Your task to perform on an android device: open app "Adobe Acrobat Reader" Image 0: 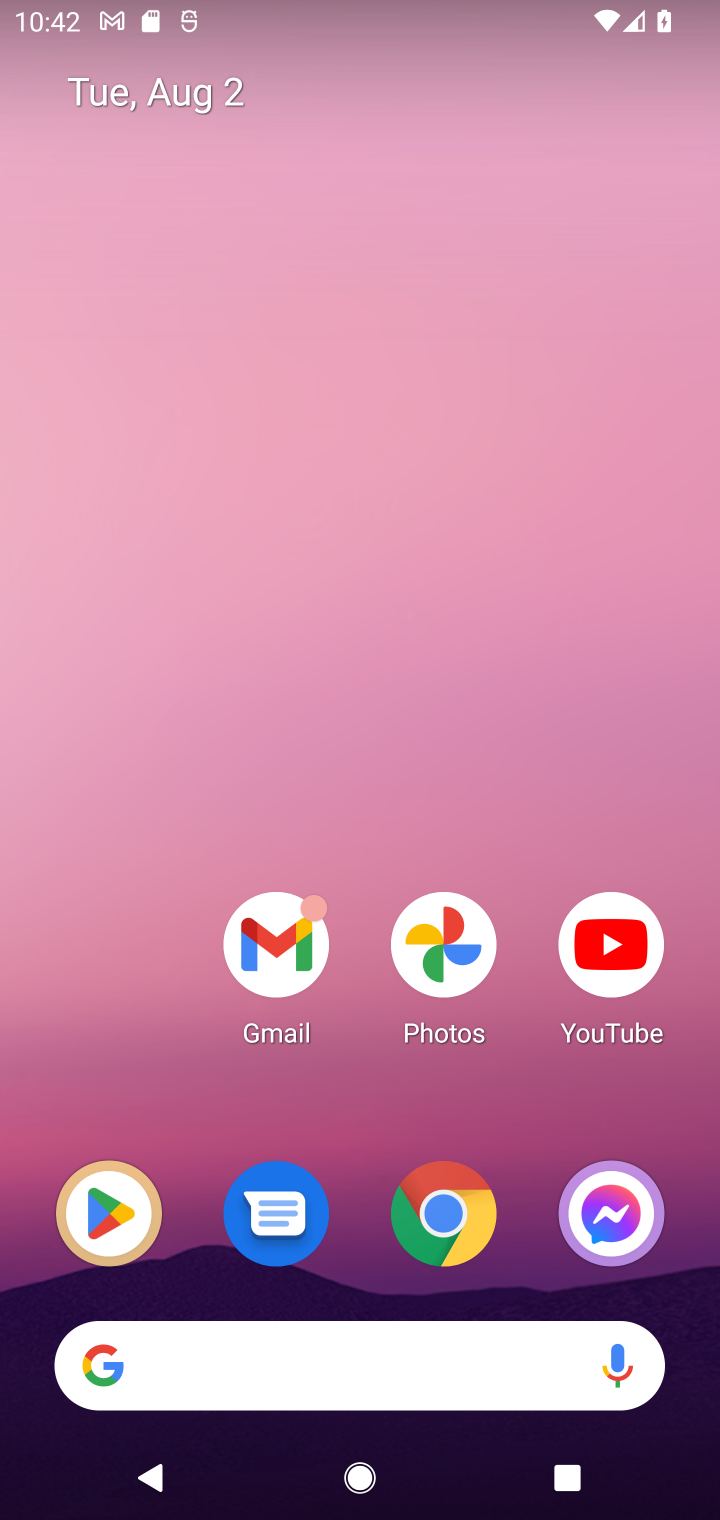
Step 0: press home button
Your task to perform on an android device: open app "Adobe Acrobat Reader" Image 1: 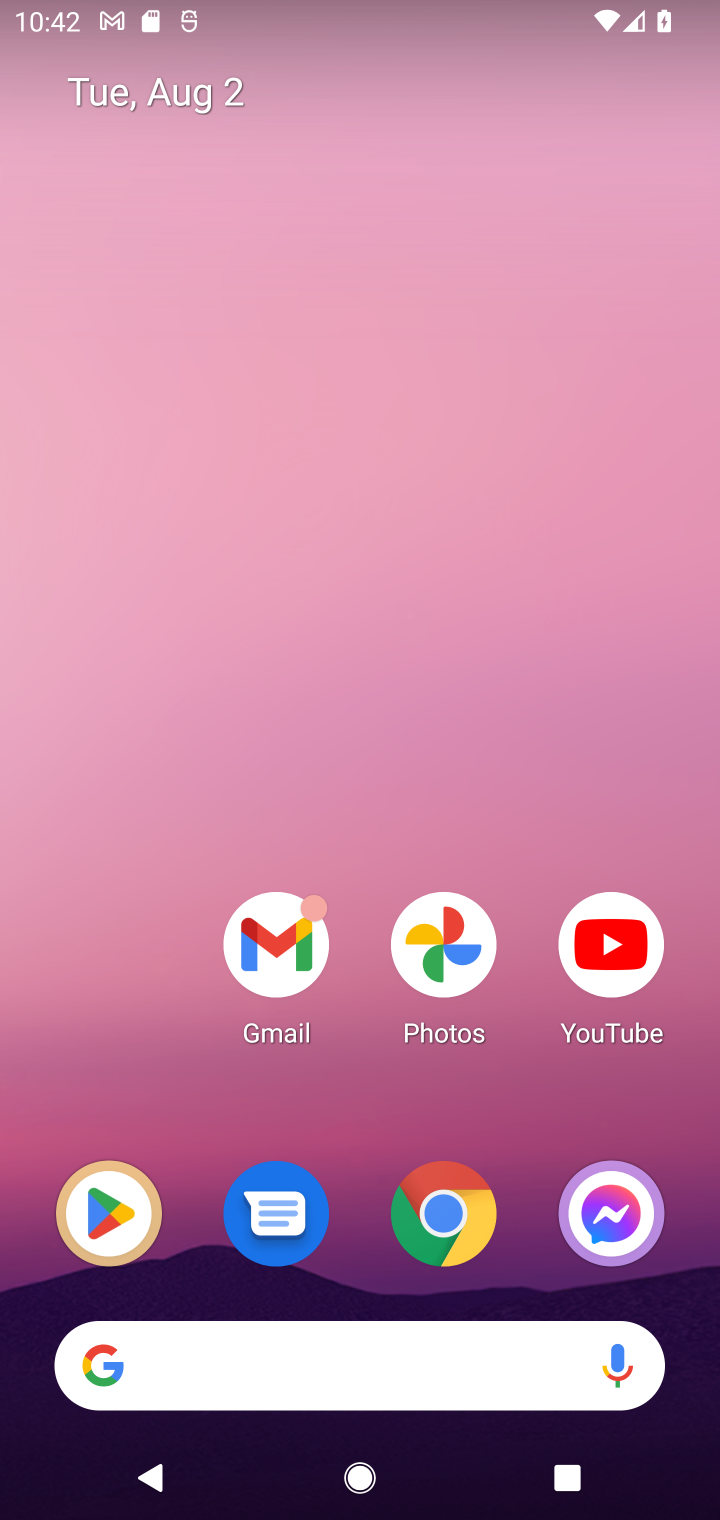
Step 1: click (96, 1230)
Your task to perform on an android device: open app "Adobe Acrobat Reader" Image 2: 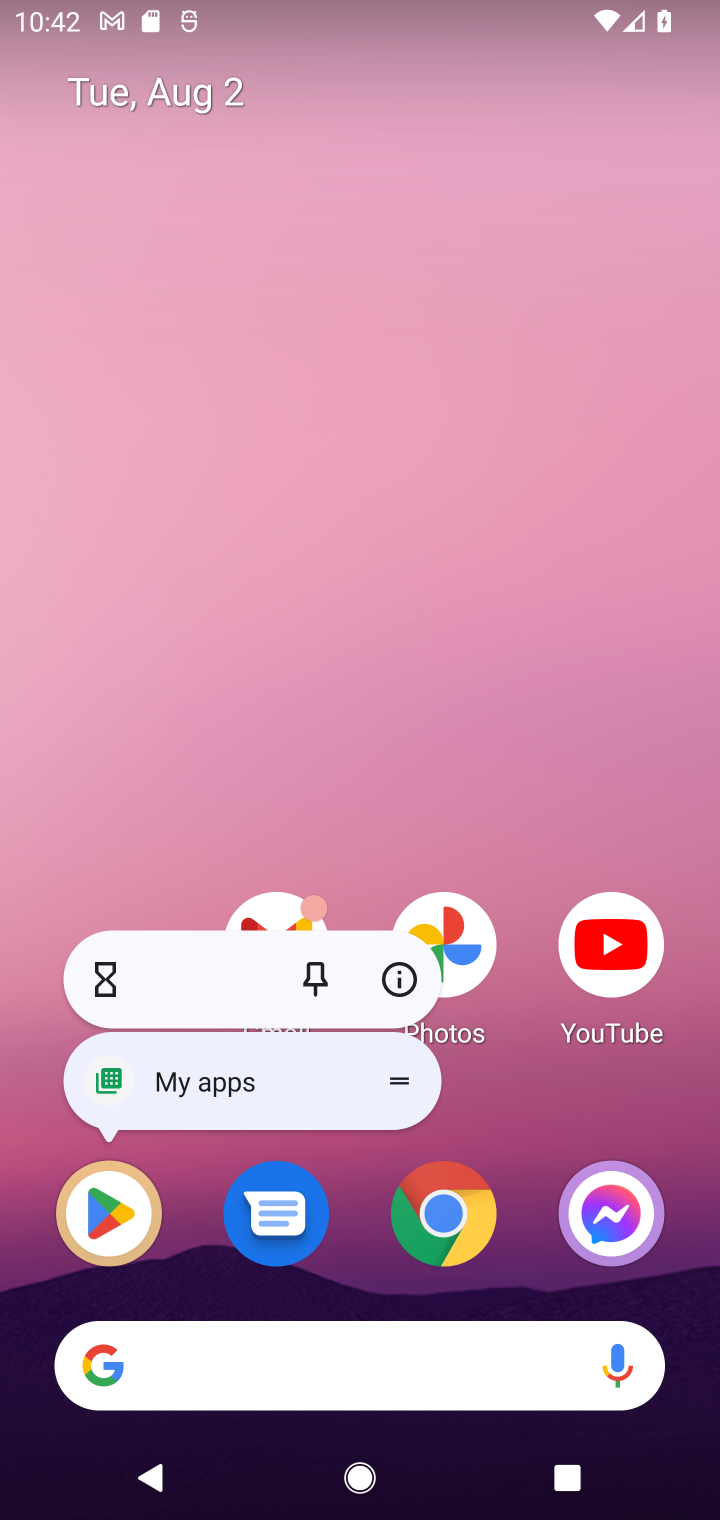
Step 2: click (121, 1230)
Your task to perform on an android device: open app "Adobe Acrobat Reader" Image 3: 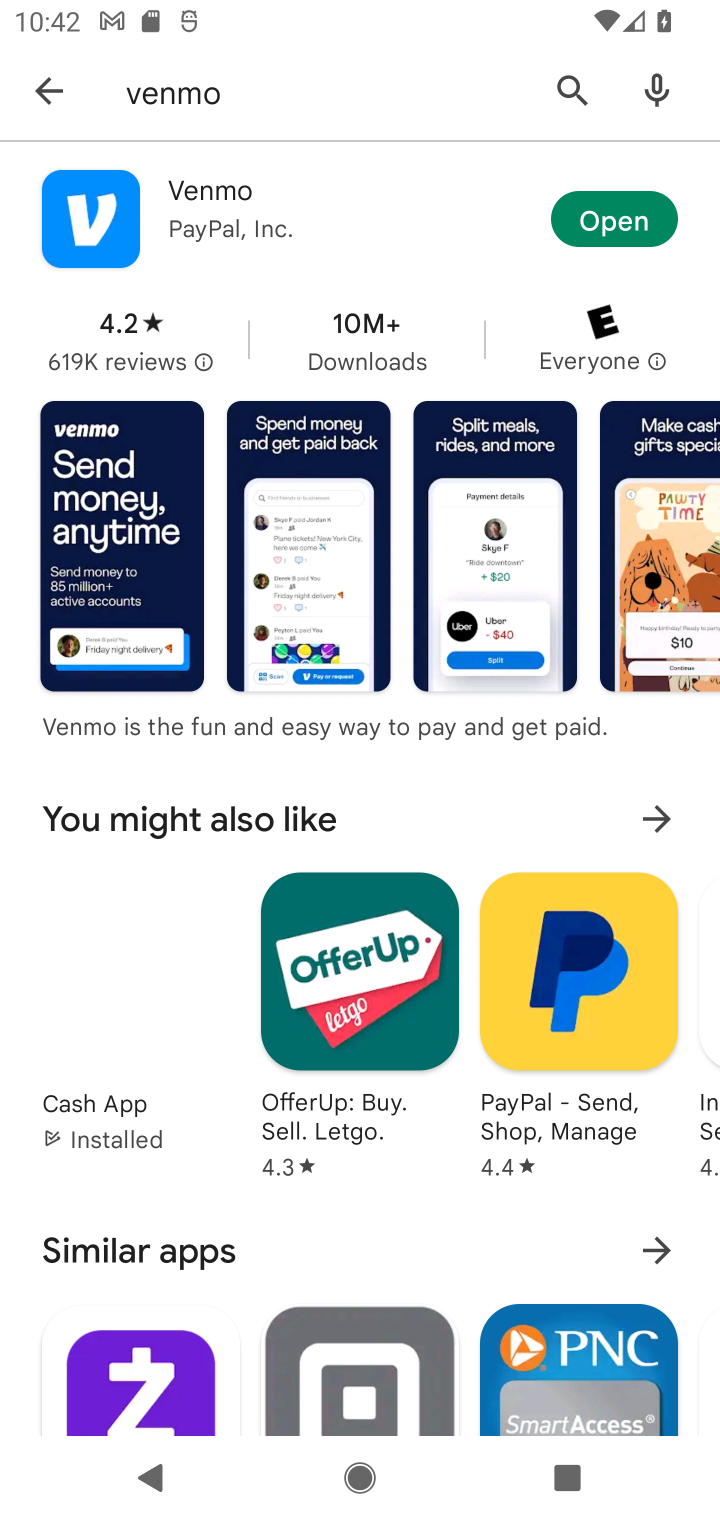
Step 3: click (37, 82)
Your task to perform on an android device: open app "Adobe Acrobat Reader" Image 4: 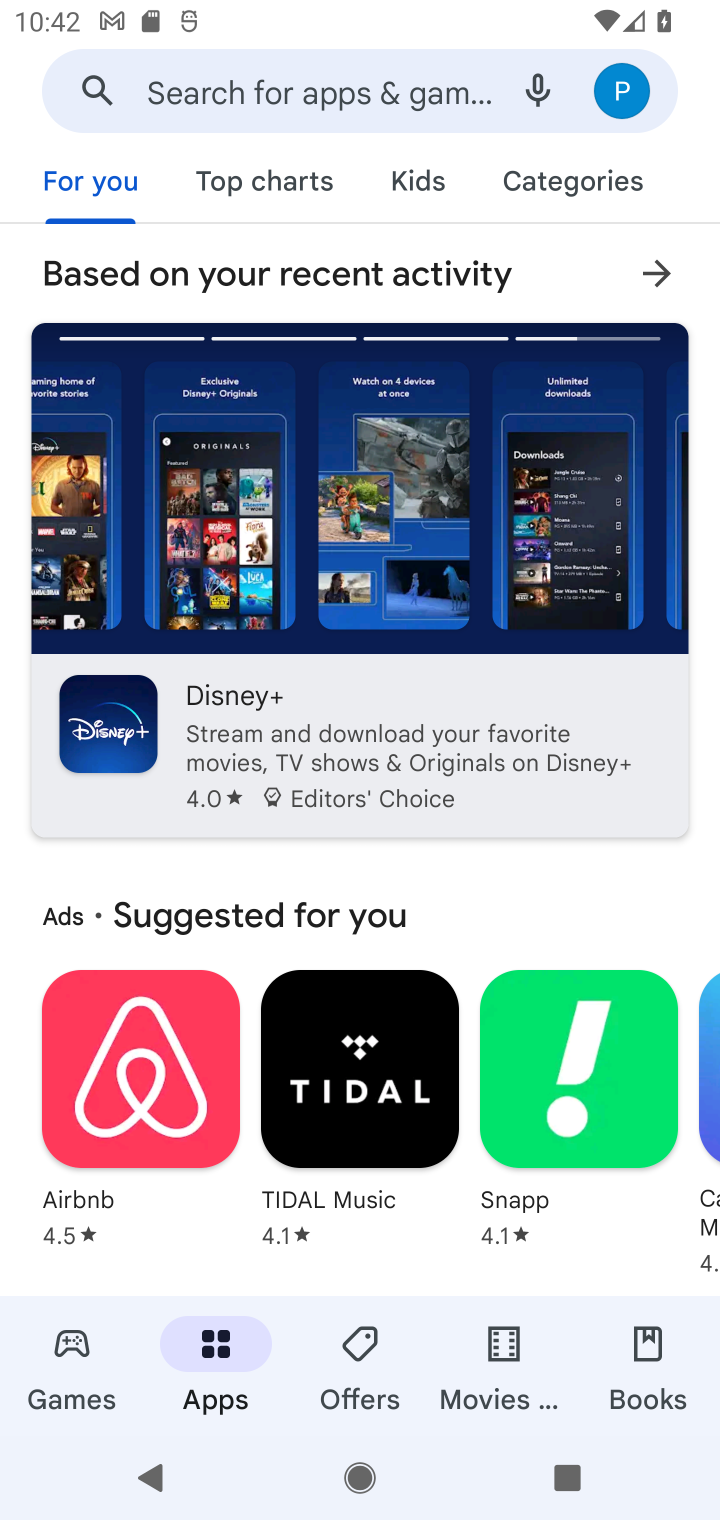
Step 4: click (286, 70)
Your task to perform on an android device: open app "Adobe Acrobat Reader" Image 5: 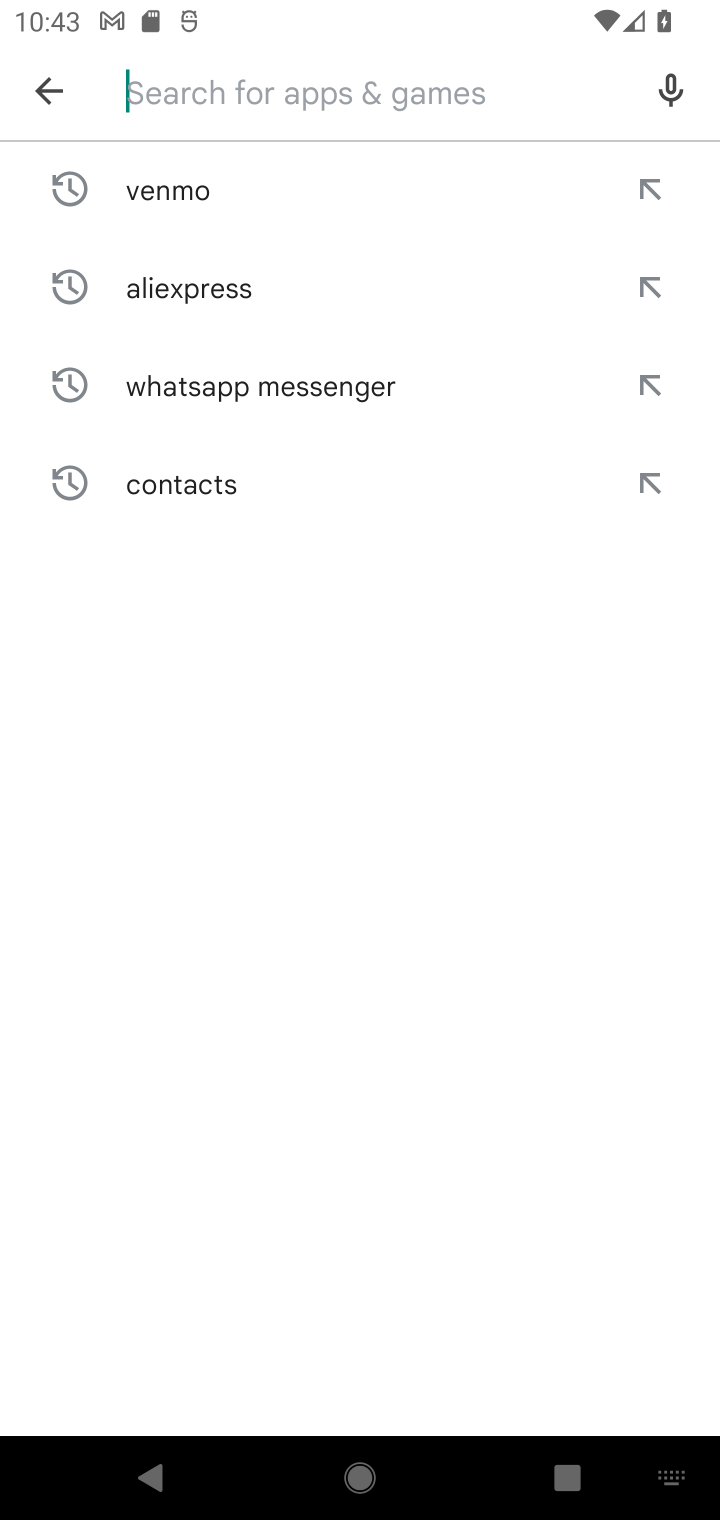
Step 5: type "Adobe Acrobat Reader"
Your task to perform on an android device: open app "Adobe Acrobat Reader" Image 6: 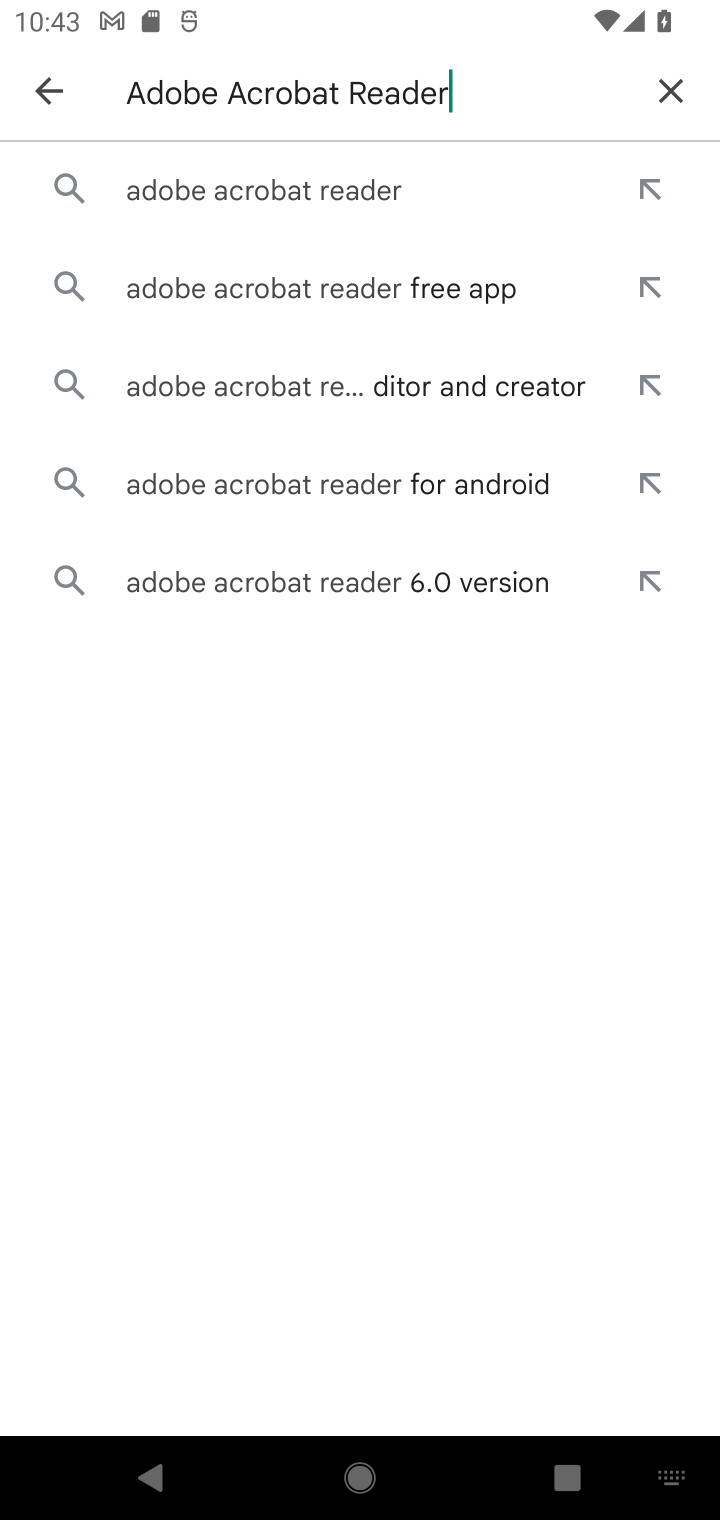
Step 6: click (357, 191)
Your task to perform on an android device: open app "Adobe Acrobat Reader" Image 7: 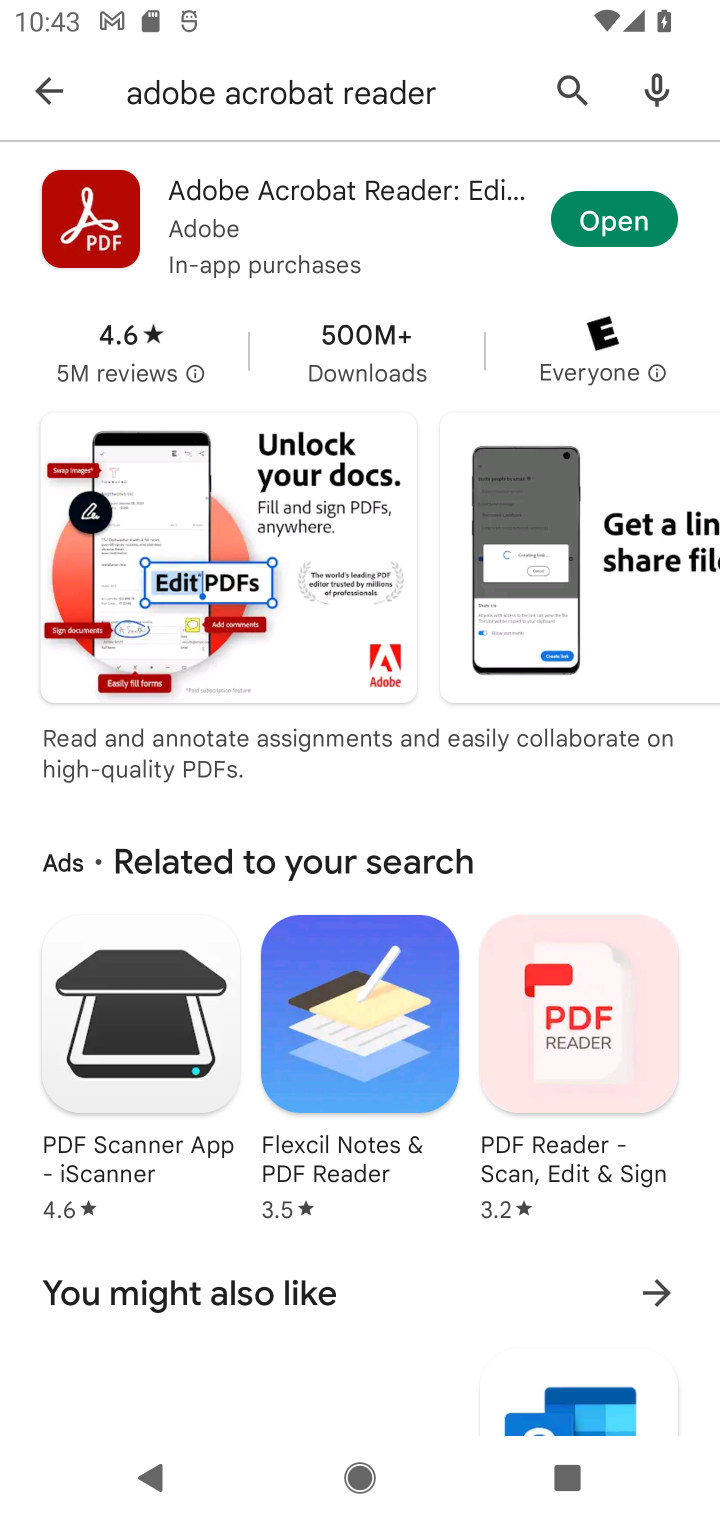
Step 7: click (601, 228)
Your task to perform on an android device: open app "Adobe Acrobat Reader" Image 8: 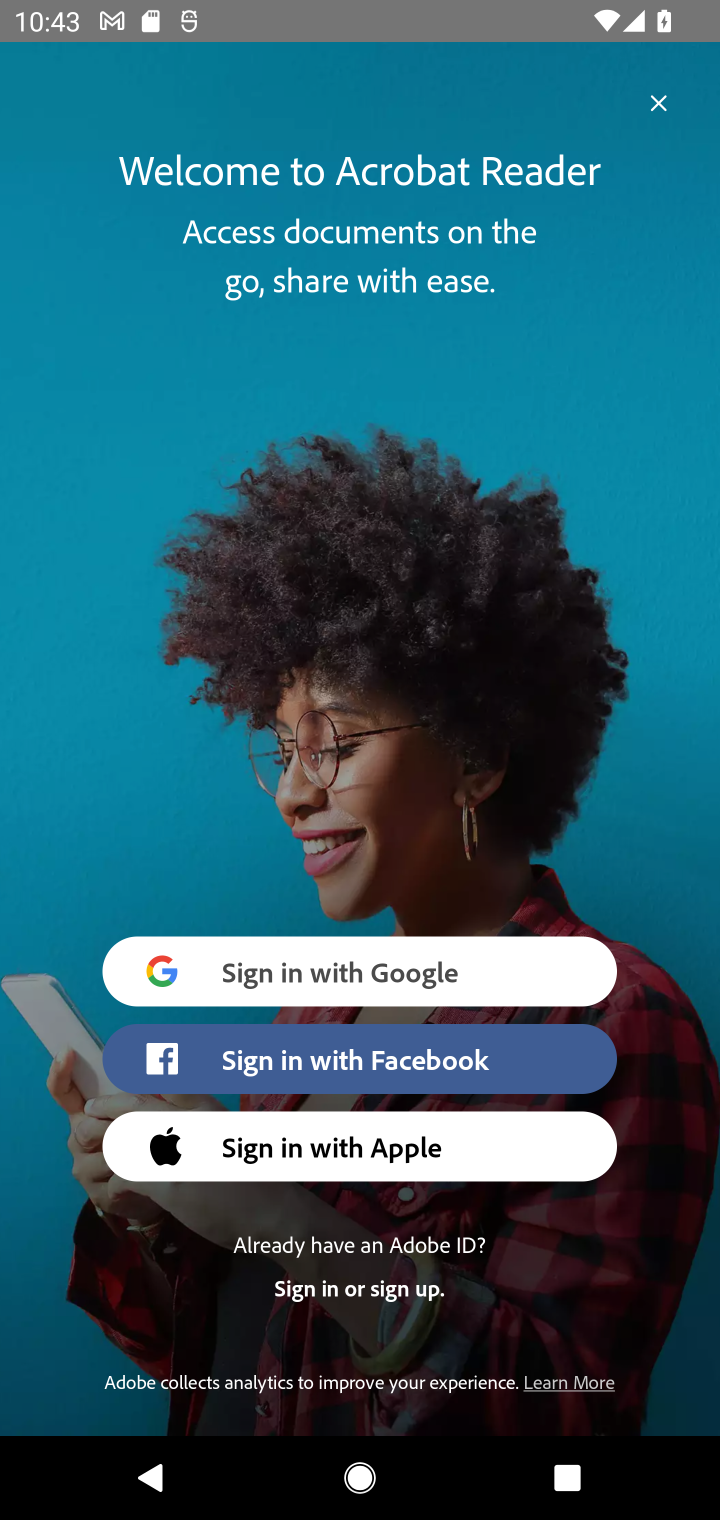
Step 8: task complete